Your task to perform on an android device: open chrome and create a bookmark for the current page Image 0: 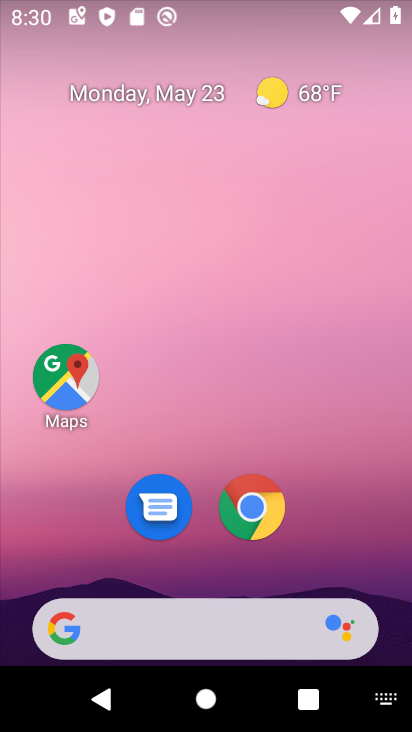
Step 0: click (260, 525)
Your task to perform on an android device: open chrome and create a bookmark for the current page Image 1: 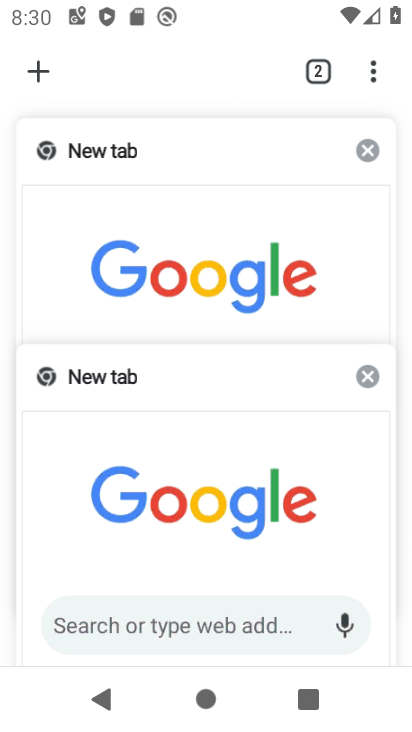
Step 1: click (203, 406)
Your task to perform on an android device: open chrome and create a bookmark for the current page Image 2: 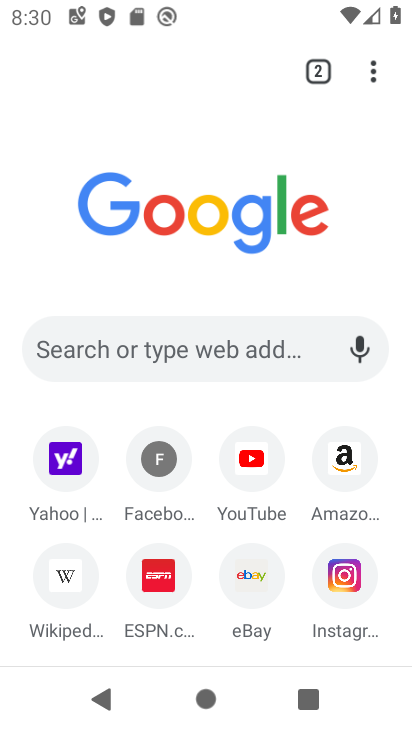
Step 2: click (367, 73)
Your task to perform on an android device: open chrome and create a bookmark for the current page Image 3: 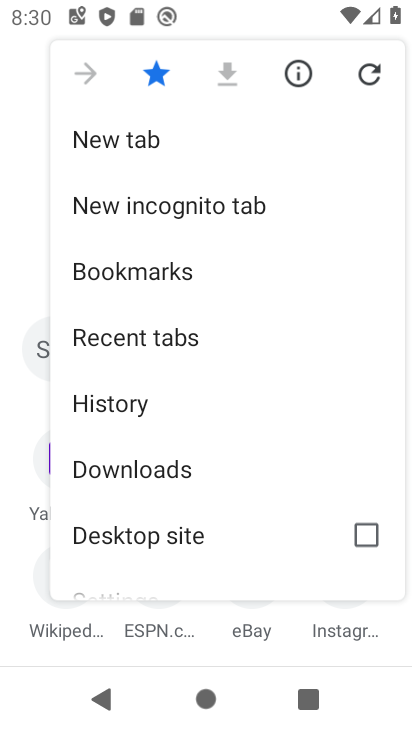
Step 3: task complete